Your task to perform on an android device: turn pop-ups off in chrome Image 0: 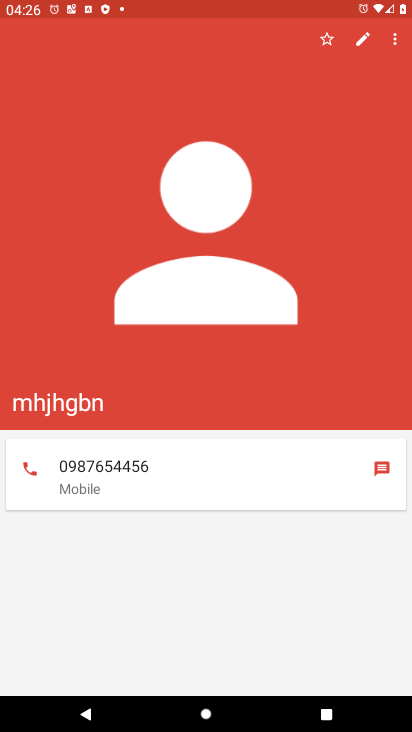
Step 0: press home button
Your task to perform on an android device: turn pop-ups off in chrome Image 1: 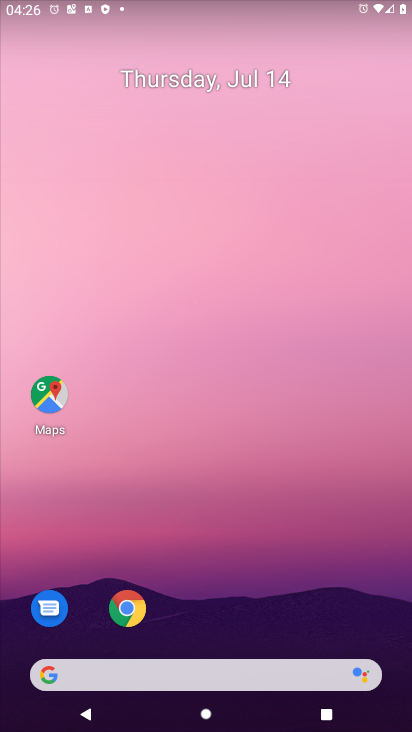
Step 1: click (127, 604)
Your task to perform on an android device: turn pop-ups off in chrome Image 2: 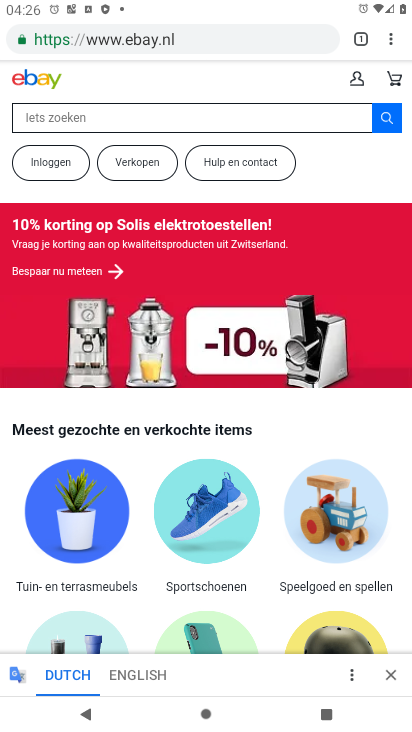
Step 2: click (390, 43)
Your task to perform on an android device: turn pop-ups off in chrome Image 3: 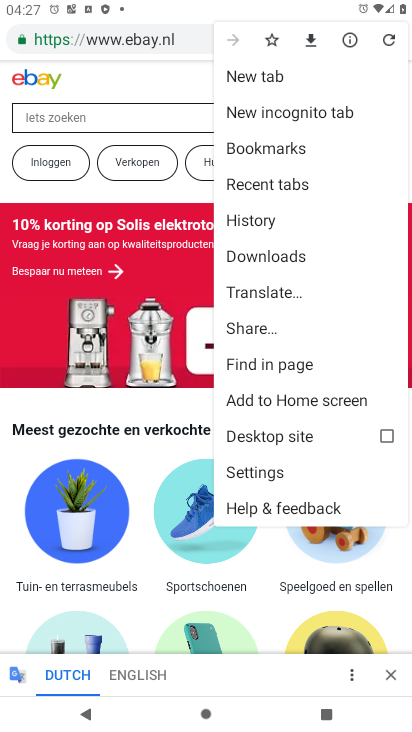
Step 3: click (250, 474)
Your task to perform on an android device: turn pop-ups off in chrome Image 4: 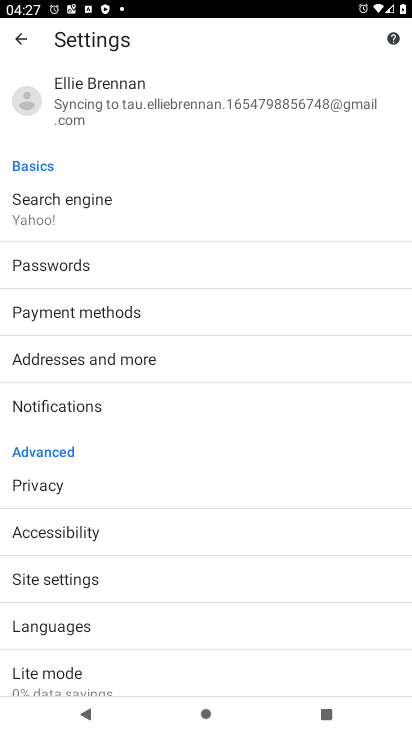
Step 4: click (59, 574)
Your task to perform on an android device: turn pop-ups off in chrome Image 5: 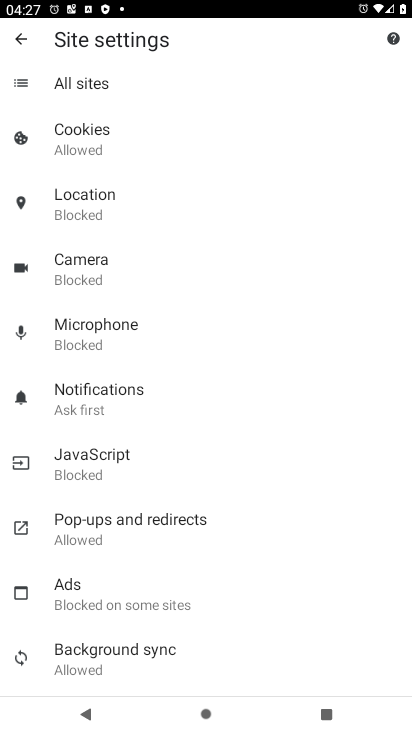
Step 5: click (85, 524)
Your task to perform on an android device: turn pop-ups off in chrome Image 6: 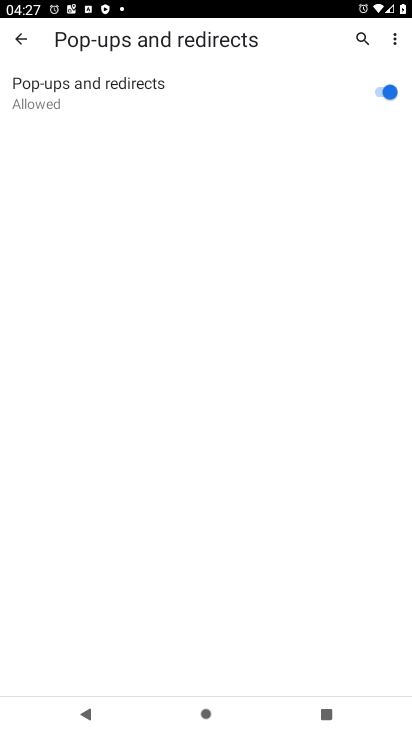
Step 6: click (377, 90)
Your task to perform on an android device: turn pop-ups off in chrome Image 7: 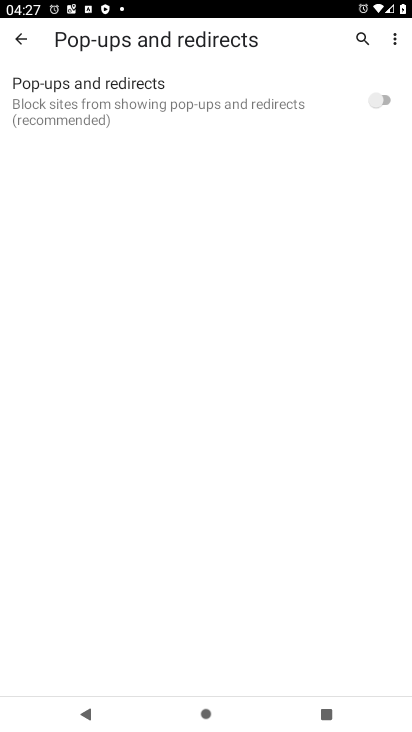
Step 7: task complete